Your task to perform on an android device: Go to privacy settings Image 0: 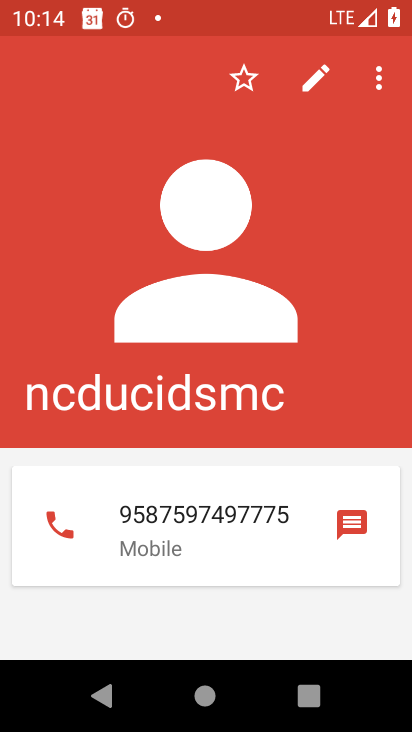
Step 0: press home button
Your task to perform on an android device: Go to privacy settings Image 1: 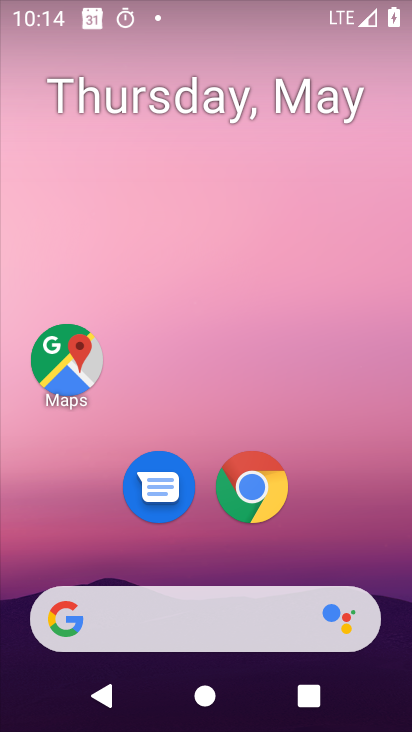
Step 1: drag from (253, 636) to (265, 11)
Your task to perform on an android device: Go to privacy settings Image 2: 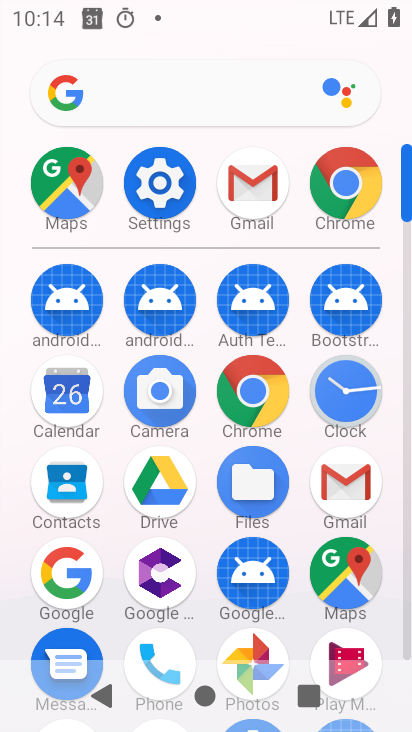
Step 2: drag from (168, 601) to (213, 257)
Your task to perform on an android device: Go to privacy settings Image 3: 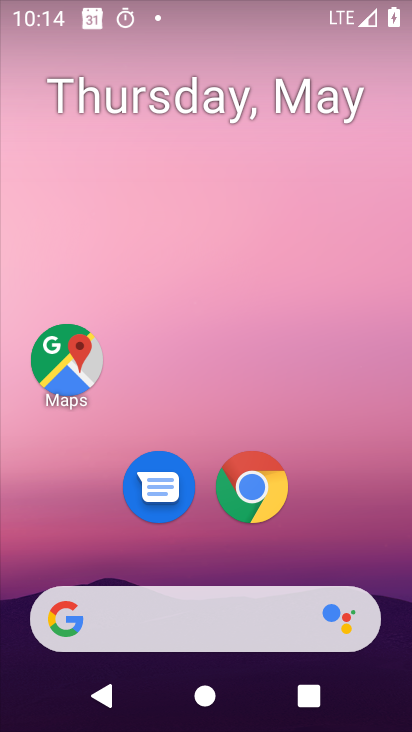
Step 3: drag from (201, 648) to (231, 162)
Your task to perform on an android device: Go to privacy settings Image 4: 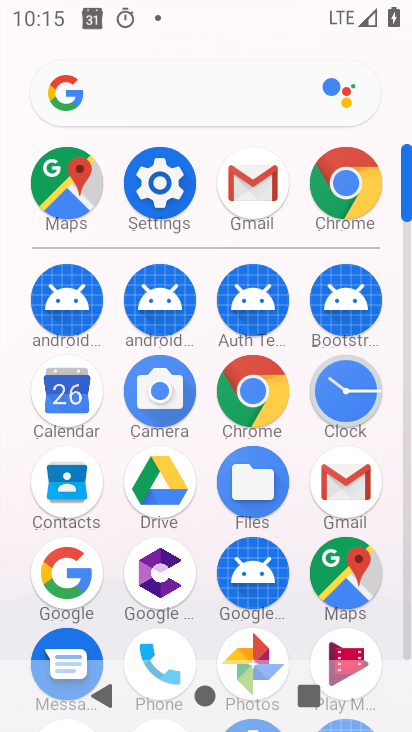
Step 4: click (165, 195)
Your task to perform on an android device: Go to privacy settings Image 5: 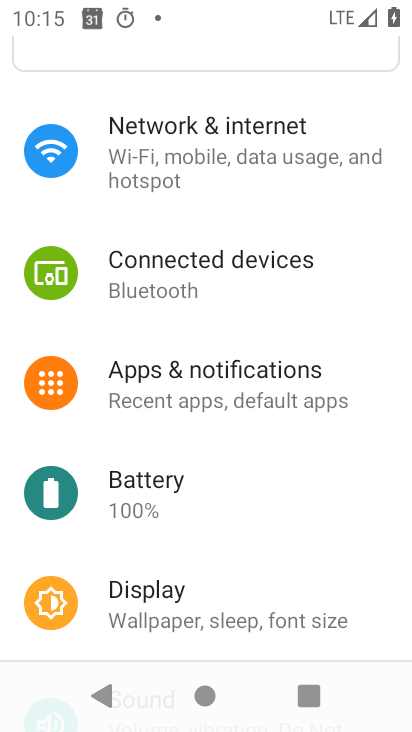
Step 5: drag from (186, 516) to (194, 170)
Your task to perform on an android device: Go to privacy settings Image 6: 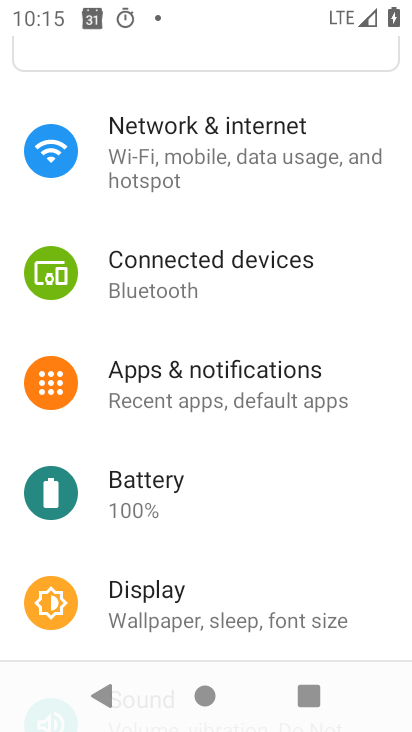
Step 6: drag from (183, 582) to (250, 203)
Your task to perform on an android device: Go to privacy settings Image 7: 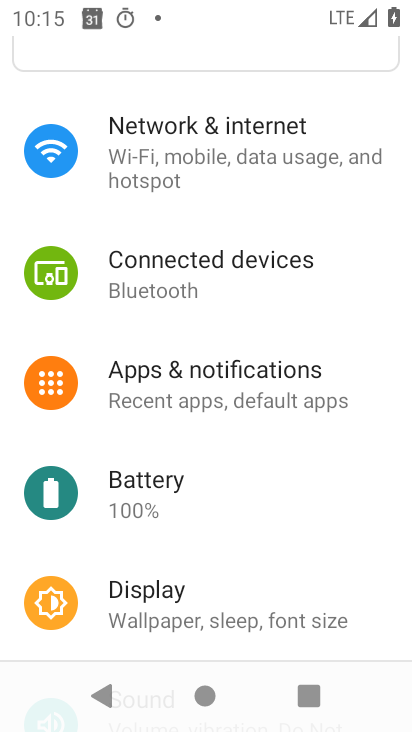
Step 7: drag from (208, 546) to (266, 117)
Your task to perform on an android device: Go to privacy settings Image 8: 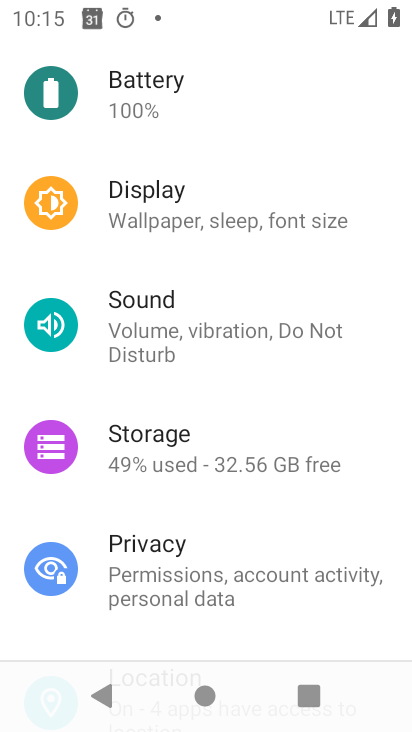
Step 8: click (229, 592)
Your task to perform on an android device: Go to privacy settings Image 9: 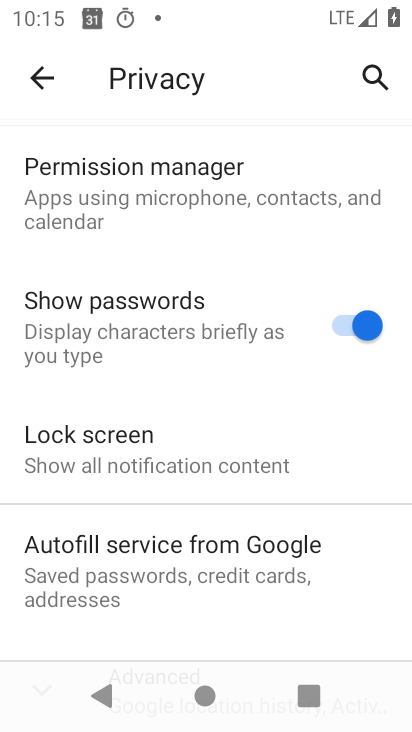
Step 9: task complete